Your task to perform on an android device: Go to Maps Image 0: 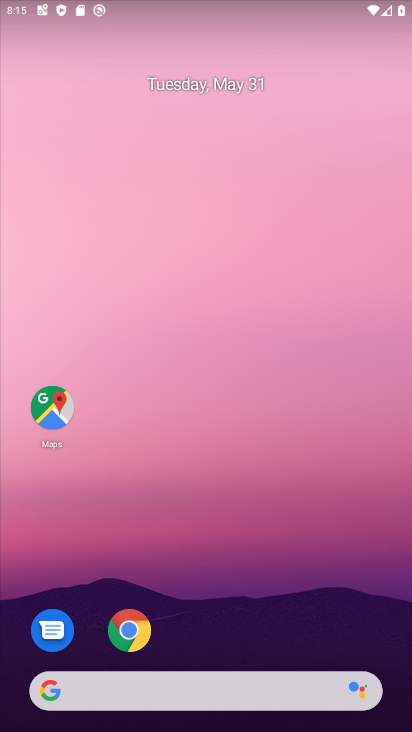
Step 0: drag from (214, 645) to (229, 153)
Your task to perform on an android device: Go to Maps Image 1: 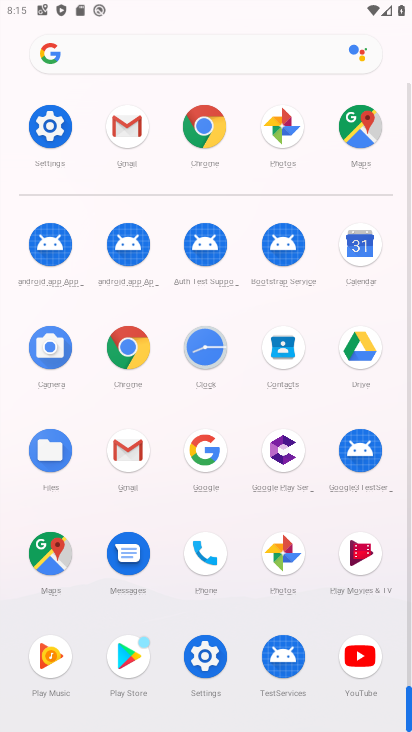
Step 1: click (356, 122)
Your task to perform on an android device: Go to Maps Image 2: 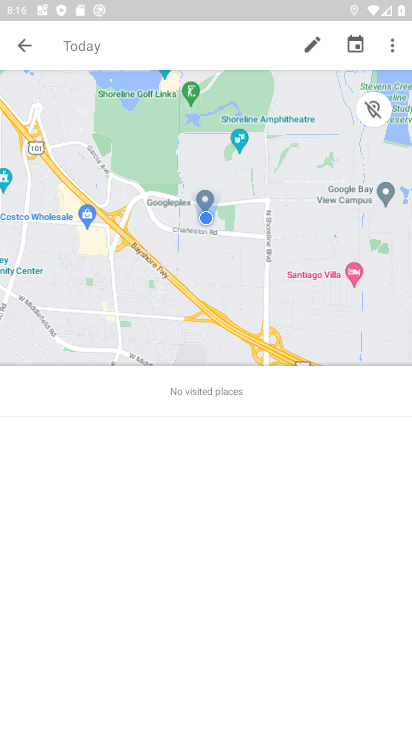
Step 2: task complete